Your task to perform on an android device: find which apps use the phone's location Image 0: 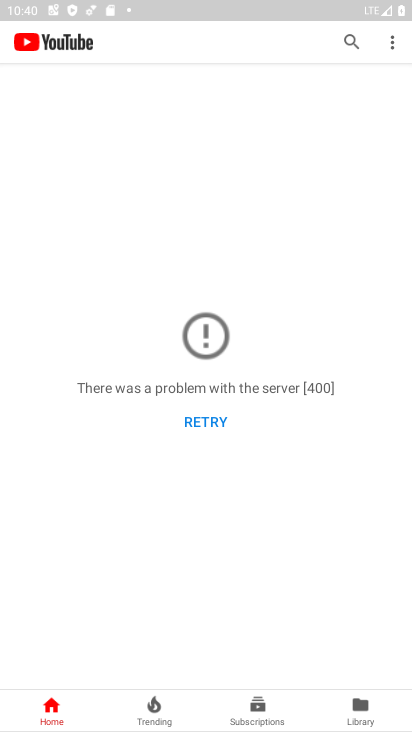
Step 0: press home button
Your task to perform on an android device: find which apps use the phone's location Image 1: 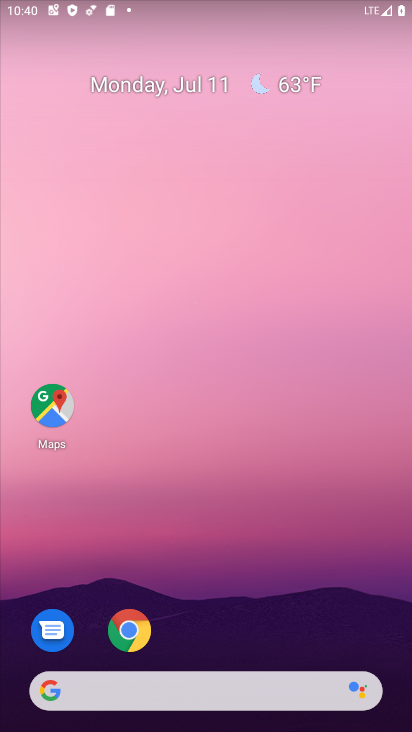
Step 1: drag from (370, 638) to (335, 22)
Your task to perform on an android device: find which apps use the phone's location Image 2: 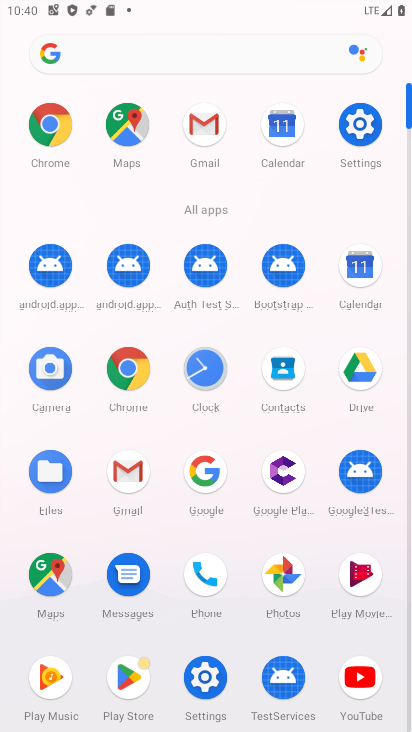
Step 2: click (205, 677)
Your task to perform on an android device: find which apps use the phone's location Image 3: 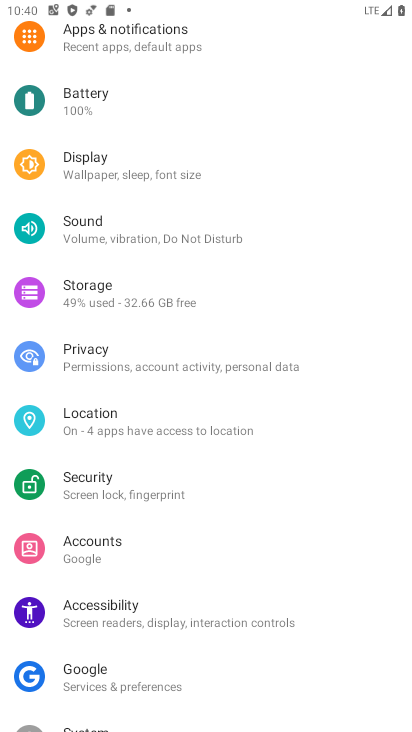
Step 3: click (91, 418)
Your task to perform on an android device: find which apps use the phone's location Image 4: 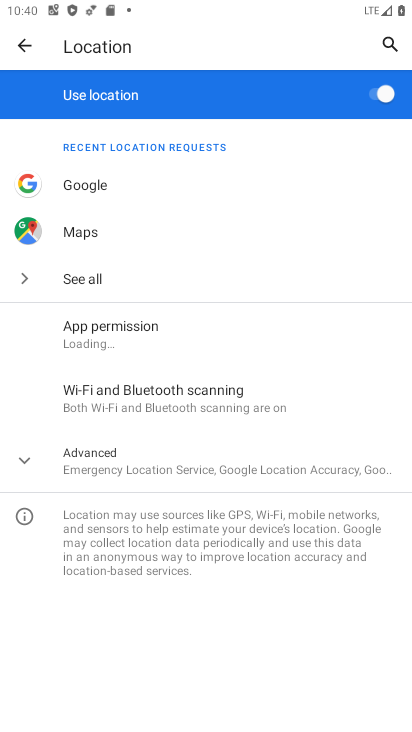
Step 4: click (92, 339)
Your task to perform on an android device: find which apps use the phone's location Image 5: 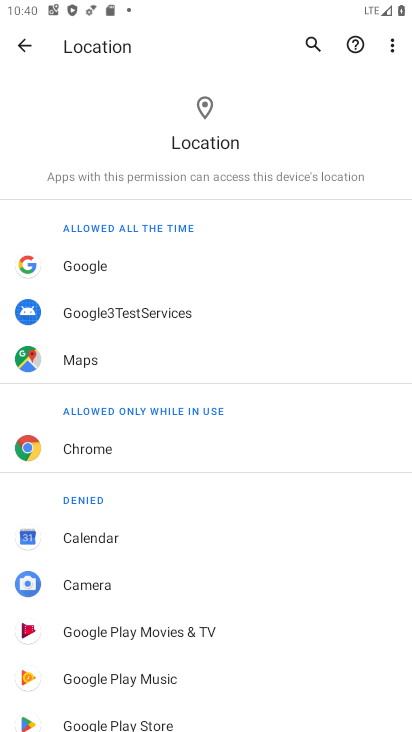
Step 5: drag from (199, 659) to (196, 470)
Your task to perform on an android device: find which apps use the phone's location Image 6: 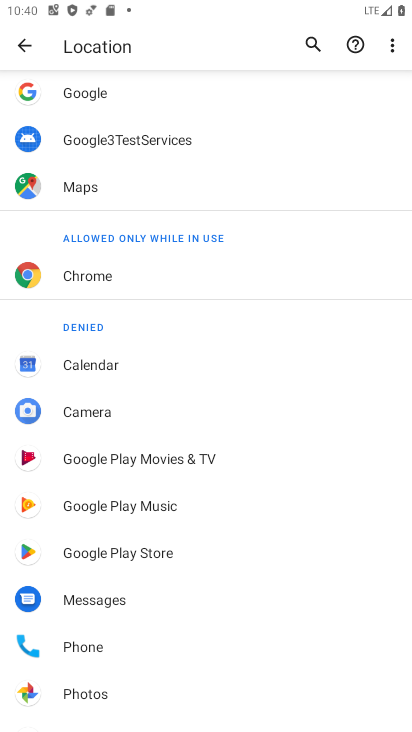
Step 6: click (86, 692)
Your task to perform on an android device: find which apps use the phone's location Image 7: 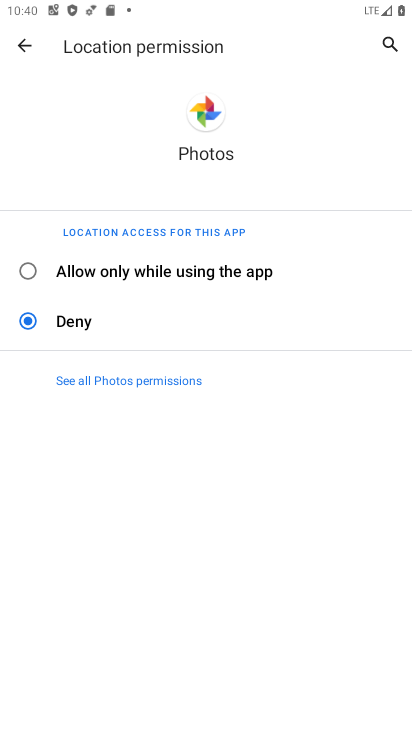
Step 7: task complete